Your task to perform on an android device: change notification settings in the gmail app Image 0: 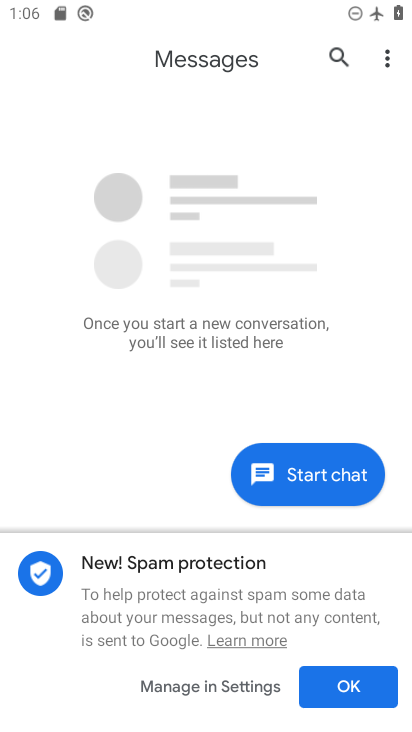
Step 0: press home button
Your task to perform on an android device: change notification settings in the gmail app Image 1: 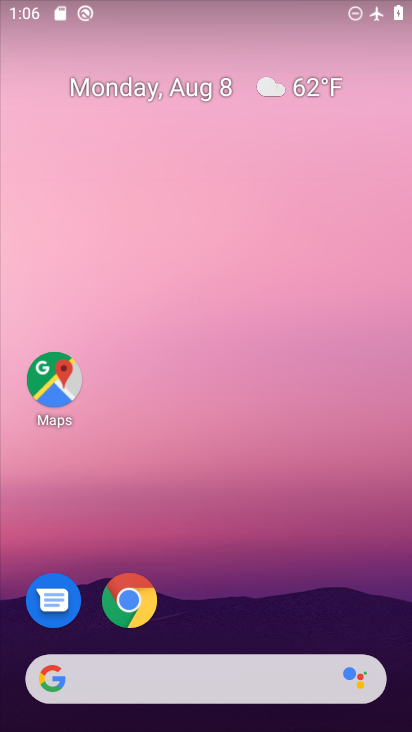
Step 1: drag from (211, 609) to (156, 203)
Your task to perform on an android device: change notification settings in the gmail app Image 2: 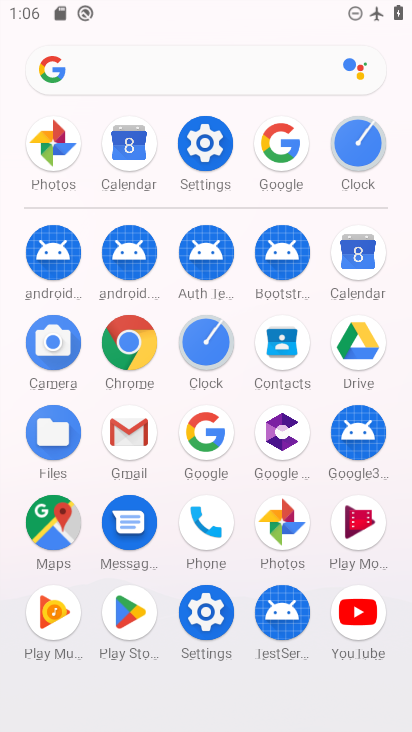
Step 2: click (146, 448)
Your task to perform on an android device: change notification settings in the gmail app Image 3: 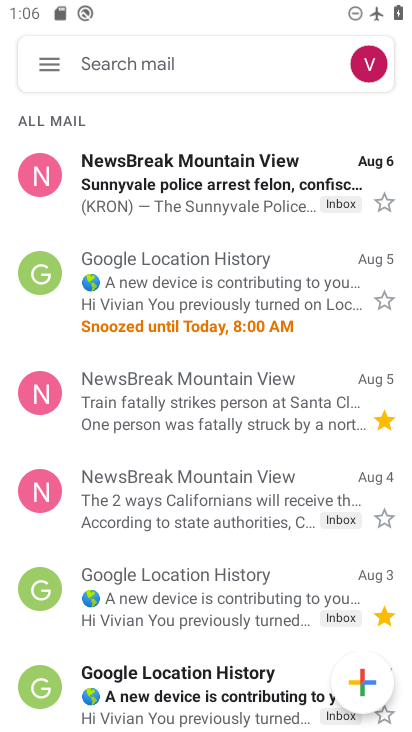
Step 3: click (57, 66)
Your task to perform on an android device: change notification settings in the gmail app Image 4: 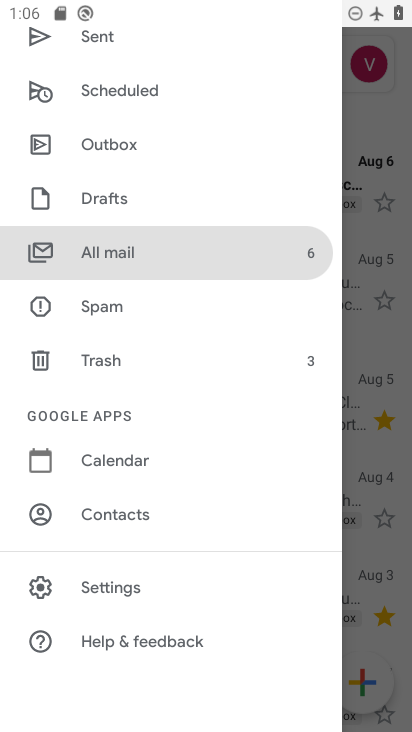
Step 4: click (114, 584)
Your task to perform on an android device: change notification settings in the gmail app Image 5: 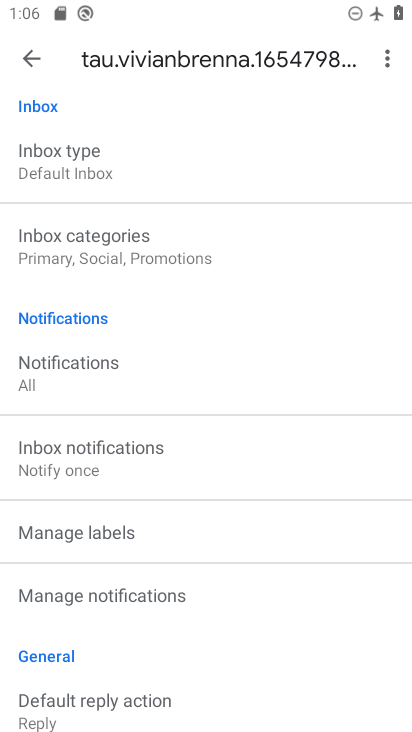
Step 5: click (122, 597)
Your task to perform on an android device: change notification settings in the gmail app Image 6: 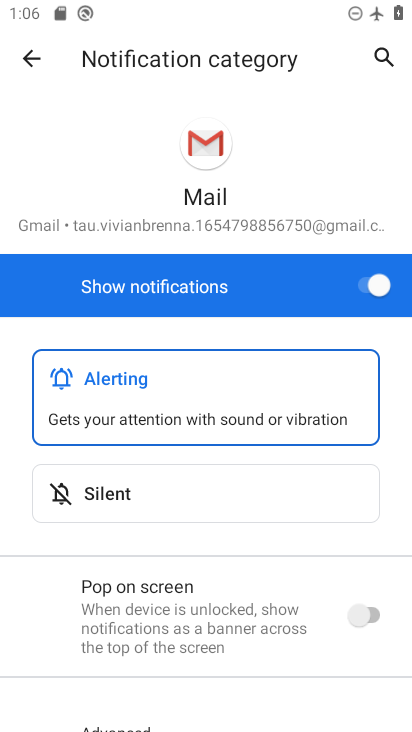
Step 6: click (367, 292)
Your task to perform on an android device: change notification settings in the gmail app Image 7: 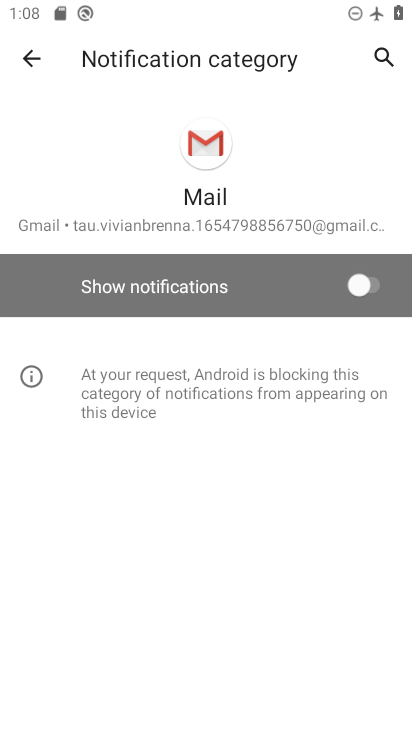
Step 7: task complete